Your task to perform on an android device: Is it going to rain tomorrow? Image 0: 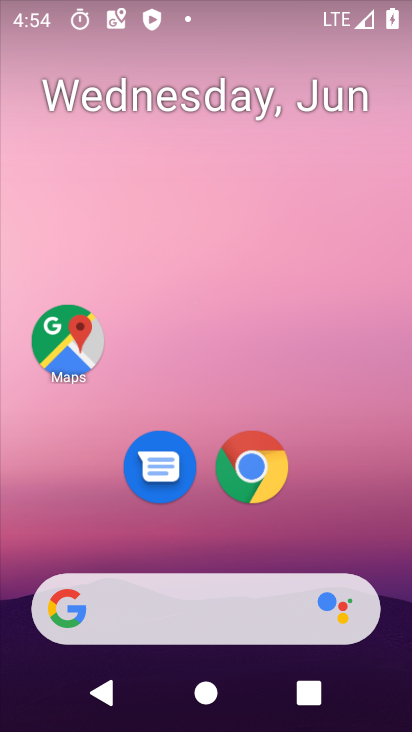
Step 0: drag from (332, 444) to (206, 0)
Your task to perform on an android device: Is it going to rain tomorrow? Image 1: 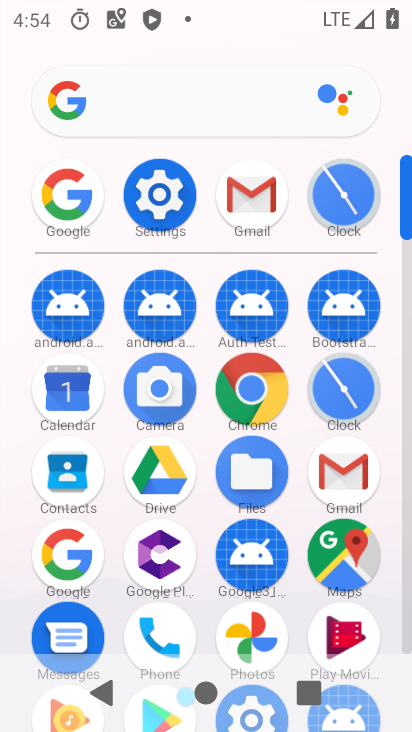
Step 1: click (60, 556)
Your task to perform on an android device: Is it going to rain tomorrow? Image 2: 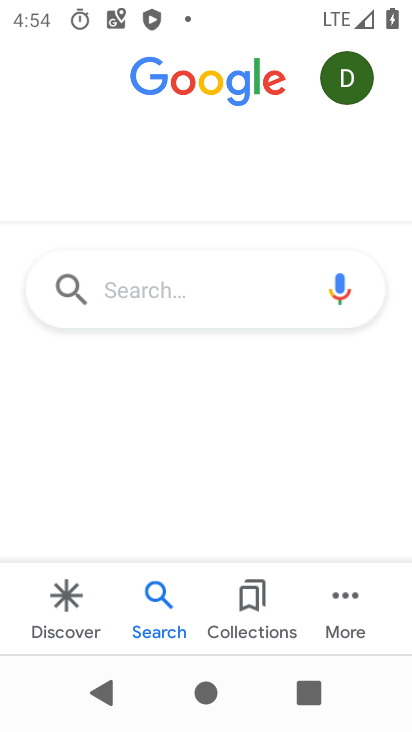
Step 2: click (208, 296)
Your task to perform on an android device: Is it going to rain tomorrow? Image 3: 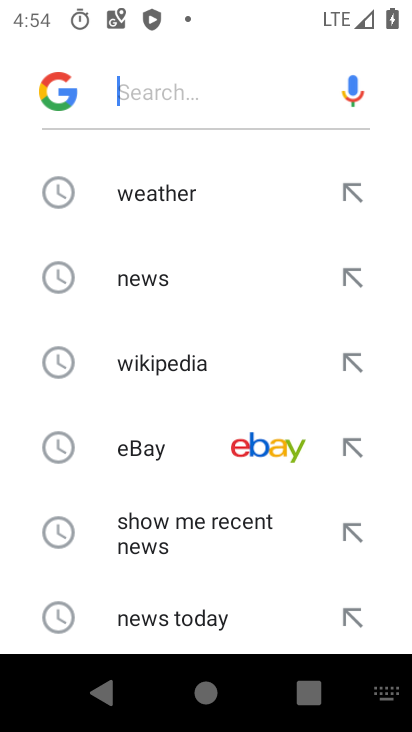
Step 3: click (204, 188)
Your task to perform on an android device: Is it going to rain tomorrow? Image 4: 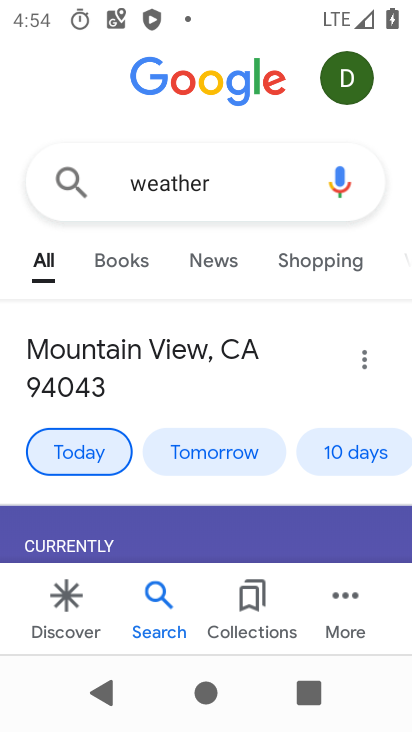
Step 4: click (232, 448)
Your task to perform on an android device: Is it going to rain tomorrow? Image 5: 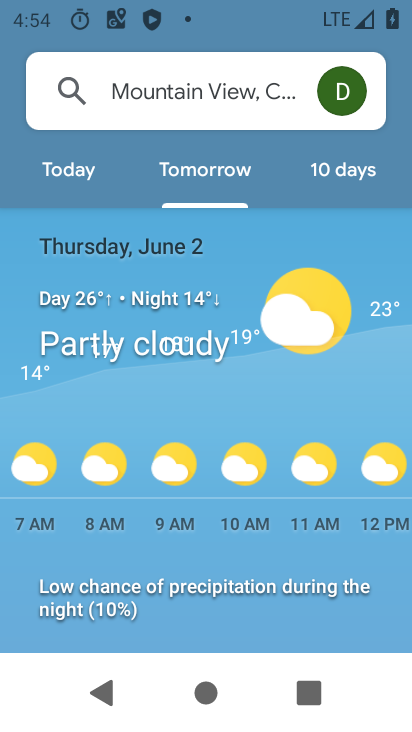
Step 5: task complete